Your task to perform on an android device: Go to CNN.com Image 0: 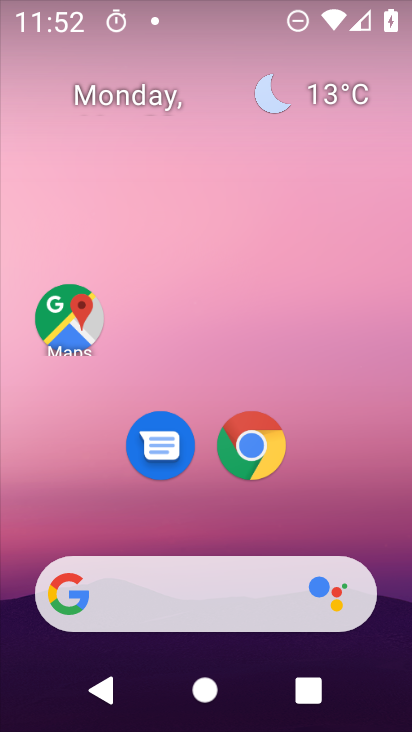
Step 0: click (255, 442)
Your task to perform on an android device: Go to CNN.com Image 1: 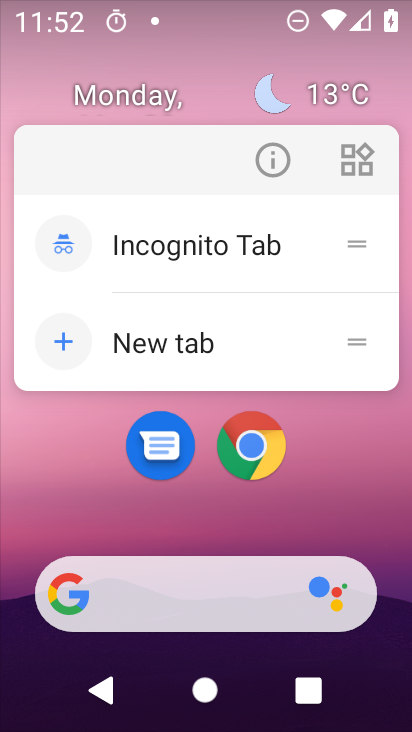
Step 1: click (251, 443)
Your task to perform on an android device: Go to CNN.com Image 2: 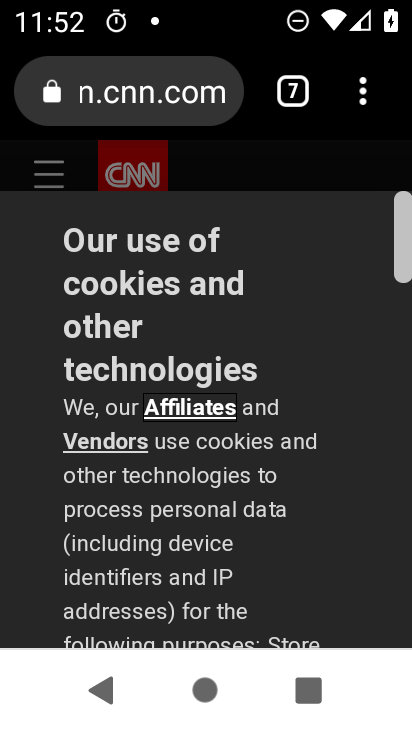
Step 2: click (298, 79)
Your task to perform on an android device: Go to CNN.com Image 3: 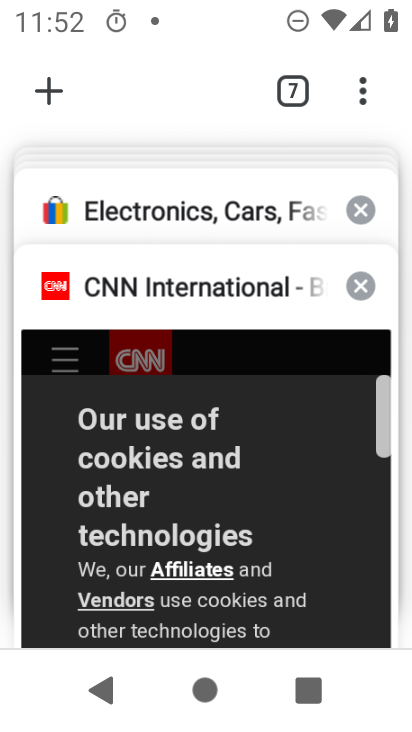
Step 3: click (40, 86)
Your task to perform on an android device: Go to CNN.com Image 4: 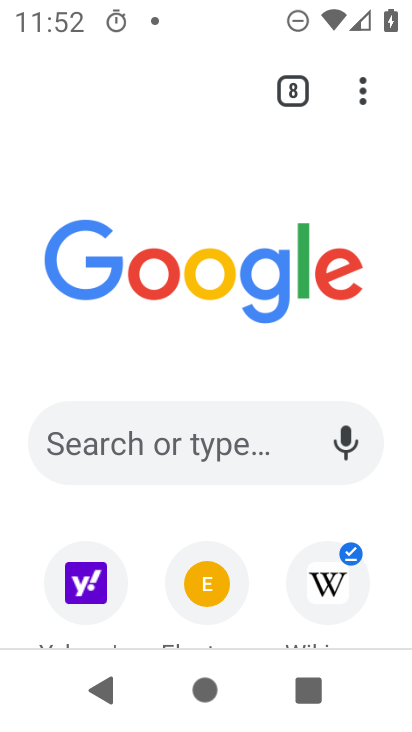
Step 4: drag from (181, 578) to (210, 366)
Your task to perform on an android device: Go to CNN.com Image 5: 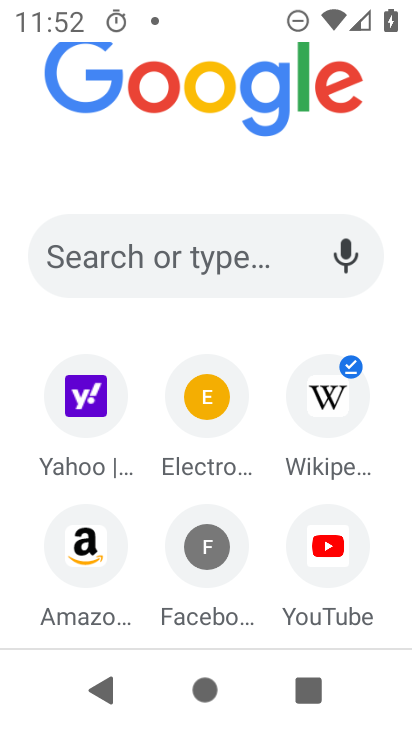
Step 5: click (91, 265)
Your task to perform on an android device: Go to CNN.com Image 6: 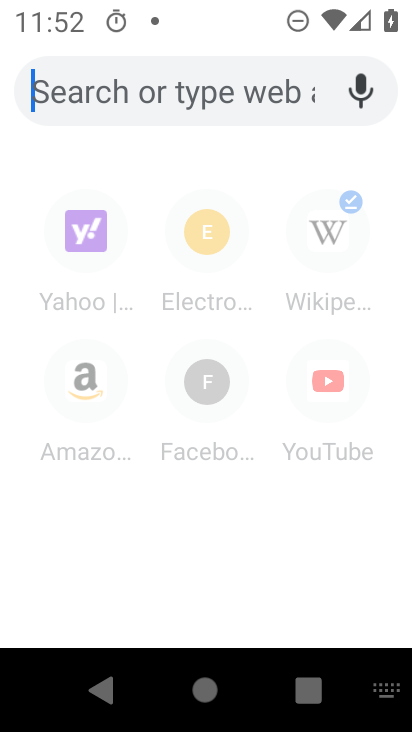
Step 6: type "cnn.com"
Your task to perform on an android device: Go to CNN.com Image 7: 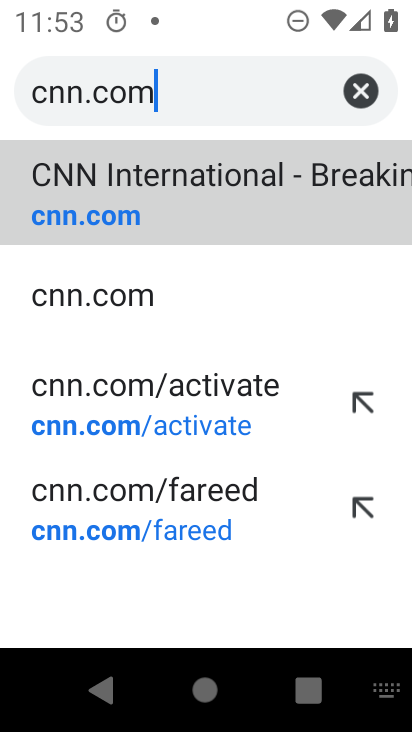
Step 7: click (257, 214)
Your task to perform on an android device: Go to CNN.com Image 8: 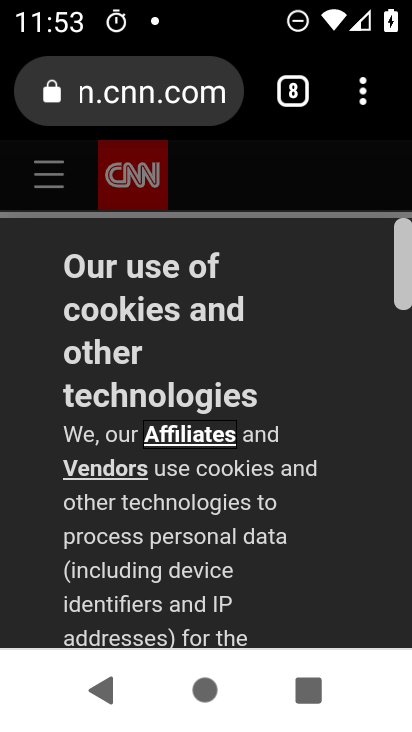
Step 8: task complete